Your task to perform on an android device: Open Youtube and go to the subscriptions tab Image 0: 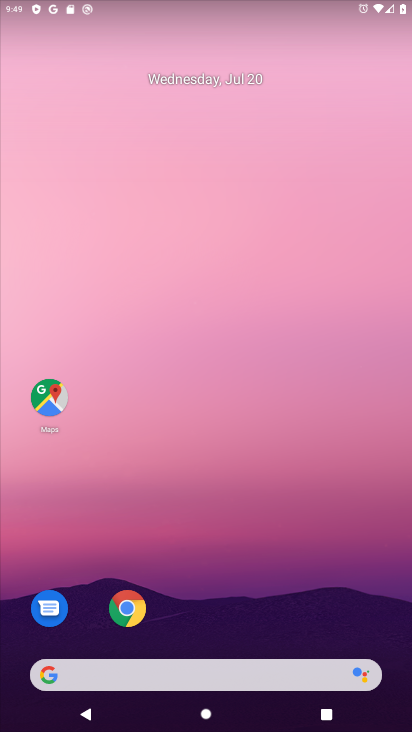
Step 0: press home button
Your task to perform on an android device: Open Youtube and go to the subscriptions tab Image 1: 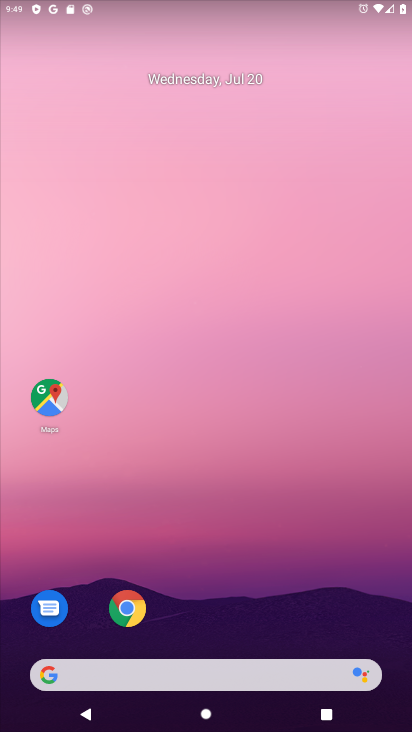
Step 1: drag from (217, 640) to (270, 13)
Your task to perform on an android device: Open Youtube and go to the subscriptions tab Image 2: 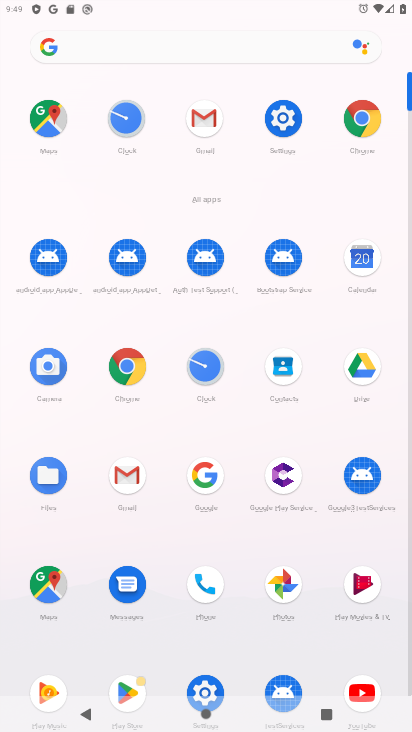
Step 2: click (363, 681)
Your task to perform on an android device: Open Youtube and go to the subscriptions tab Image 3: 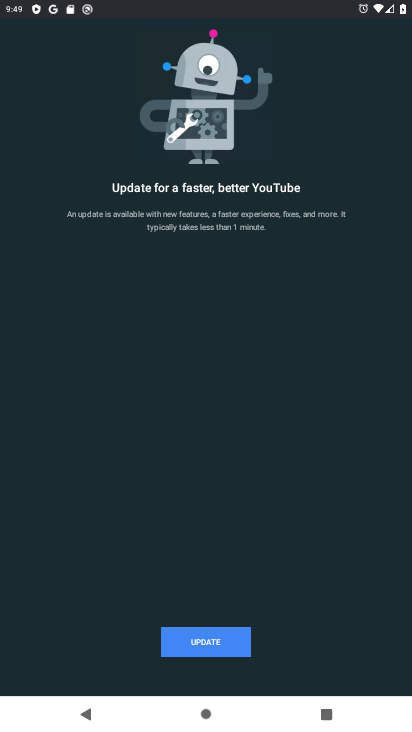
Step 3: click (208, 635)
Your task to perform on an android device: Open Youtube and go to the subscriptions tab Image 4: 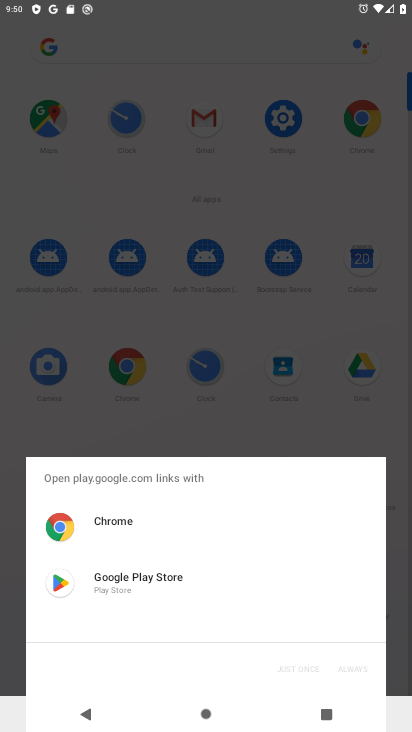
Step 4: click (143, 584)
Your task to perform on an android device: Open Youtube and go to the subscriptions tab Image 5: 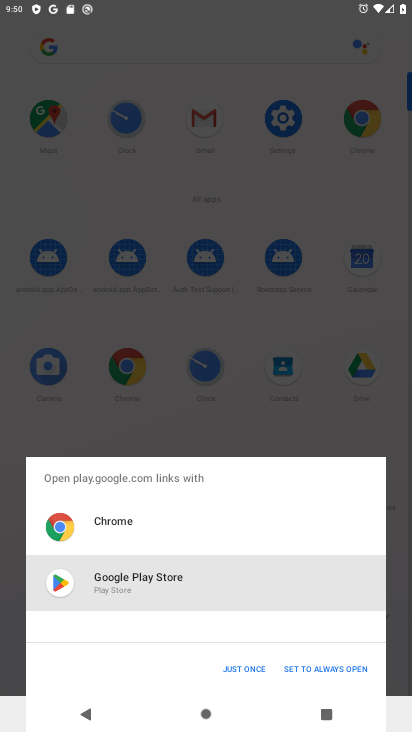
Step 5: click (251, 664)
Your task to perform on an android device: Open Youtube and go to the subscriptions tab Image 6: 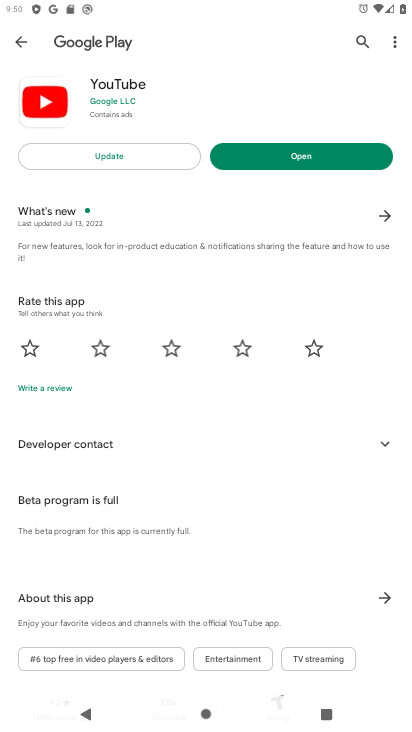
Step 6: click (111, 153)
Your task to perform on an android device: Open Youtube and go to the subscriptions tab Image 7: 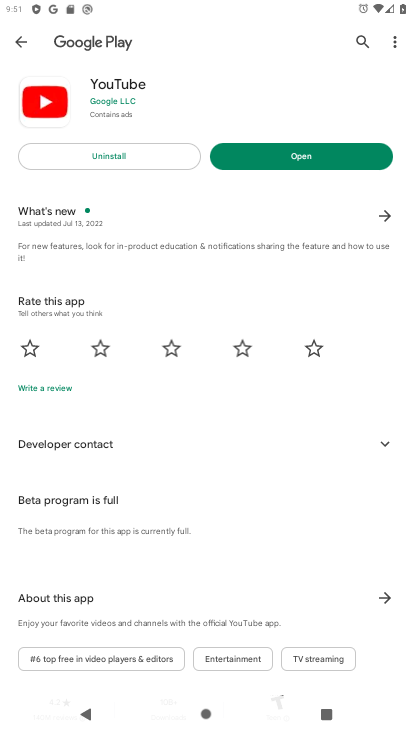
Step 7: click (316, 159)
Your task to perform on an android device: Open Youtube and go to the subscriptions tab Image 8: 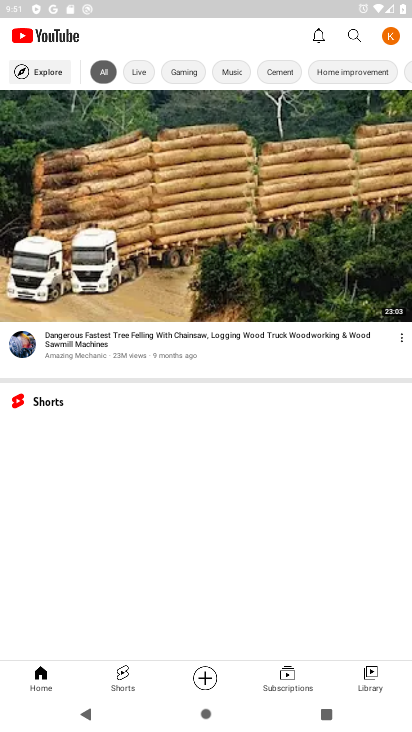
Step 8: click (286, 670)
Your task to perform on an android device: Open Youtube and go to the subscriptions tab Image 9: 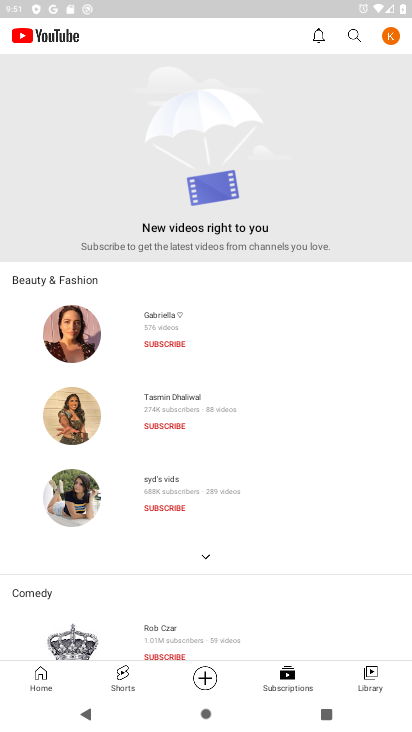
Step 9: task complete